Your task to perform on an android device: Go to location settings Image 0: 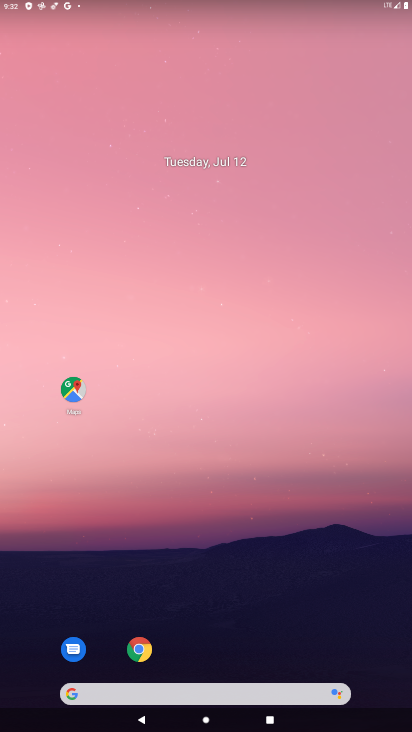
Step 0: drag from (267, 649) to (225, 202)
Your task to perform on an android device: Go to location settings Image 1: 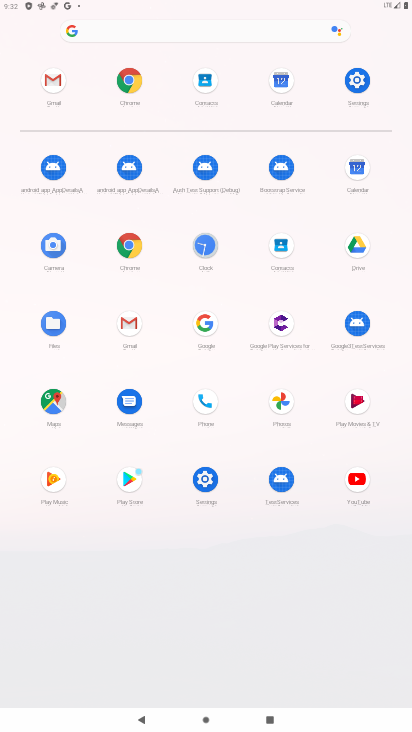
Step 1: click (362, 78)
Your task to perform on an android device: Go to location settings Image 2: 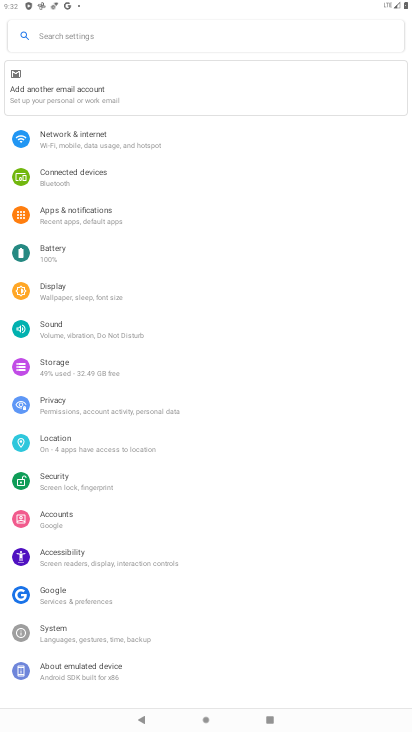
Step 2: click (88, 456)
Your task to perform on an android device: Go to location settings Image 3: 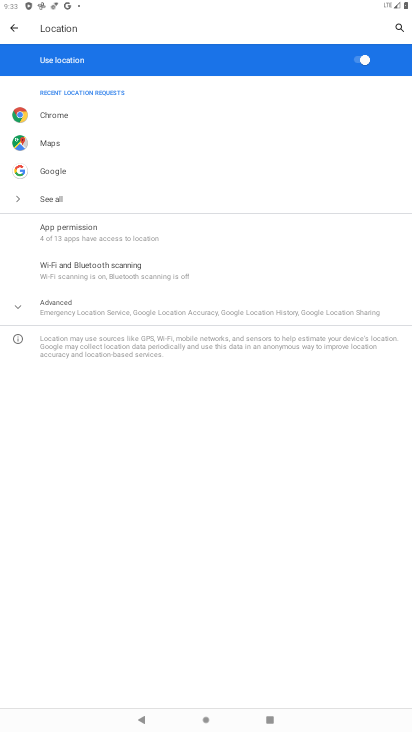
Step 3: task complete